Your task to perform on an android device: turn on translation in the chrome app Image 0: 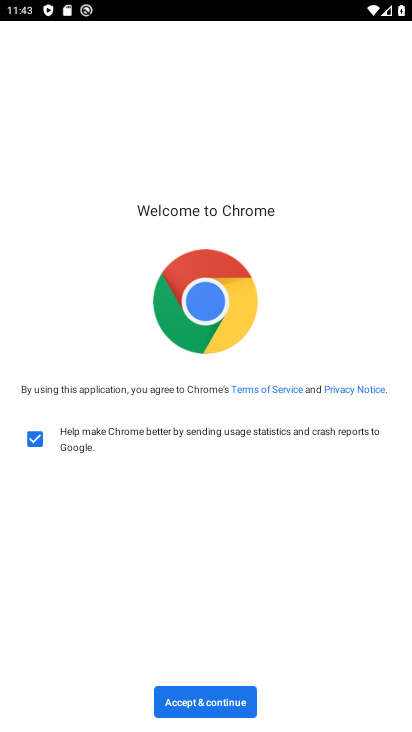
Step 0: click (224, 706)
Your task to perform on an android device: turn on translation in the chrome app Image 1: 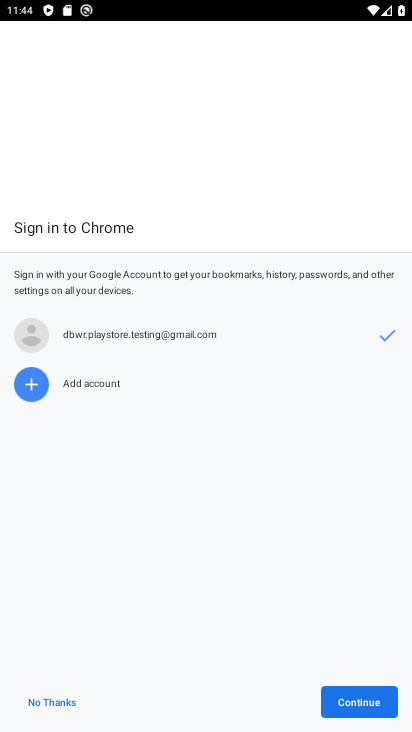
Step 1: drag from (171, 604) to (196, 301)
Your task to perform on an android device: turn on translation in the chrome app Image 2: 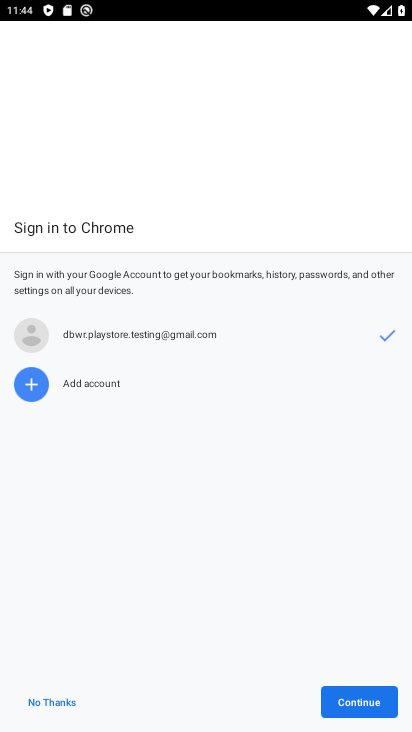
Step 2: click (54, 702)
Your task to perform on an android device: turn on translation in the chrome app Image 3: 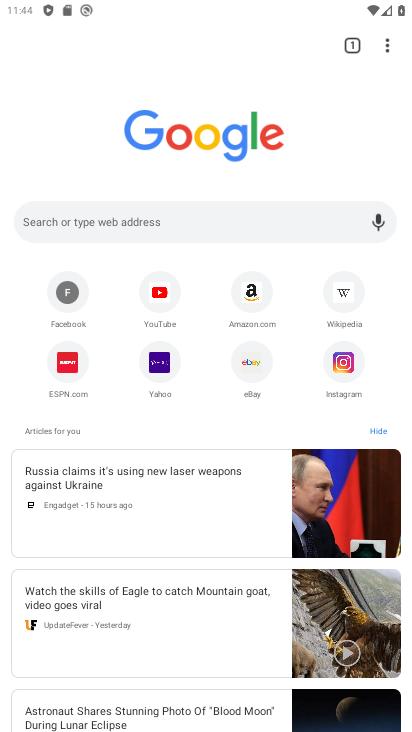
Step 3: click (393, 31)
Your task to perform on an android device: turn on translation in the chrome app Image 4: 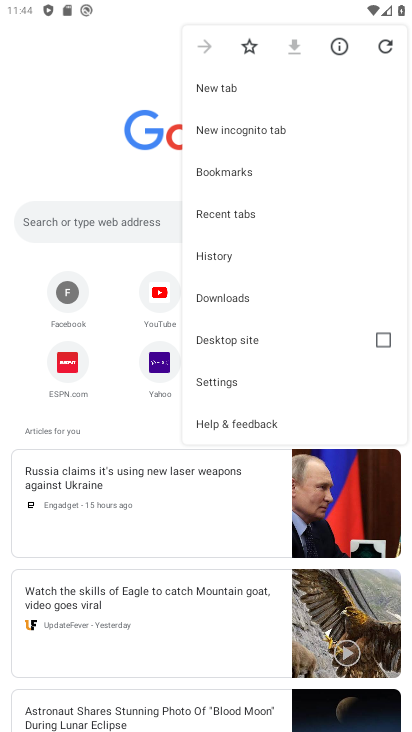
Step 4: click (229, 390)
Your task to perform on an android device: turn on translation in the chrome app Image 5: 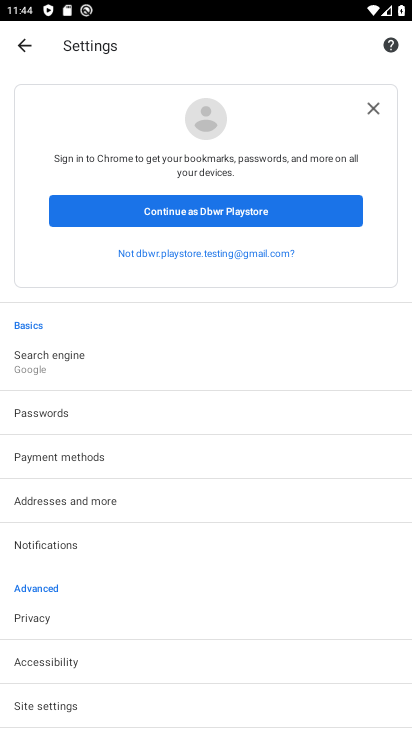
Step 5: drag from (60, 685) to (73, 236)
Your task to perform on an android device: turn on translation in the chrome app Image 6: 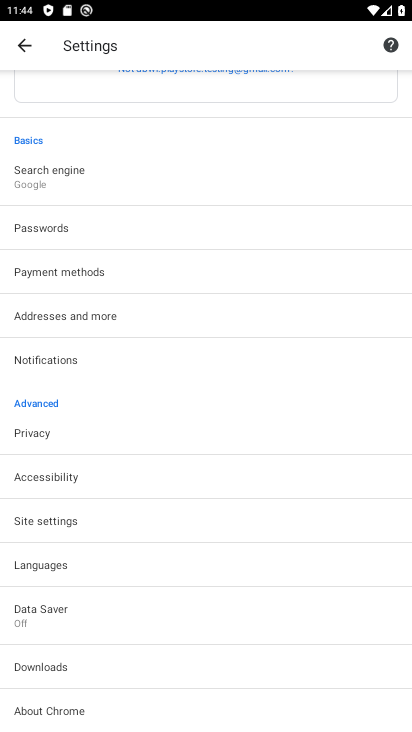
Step 6: click (82, 564)
Your task to perform on an android device: turn on translation in the chrome app Image 7: 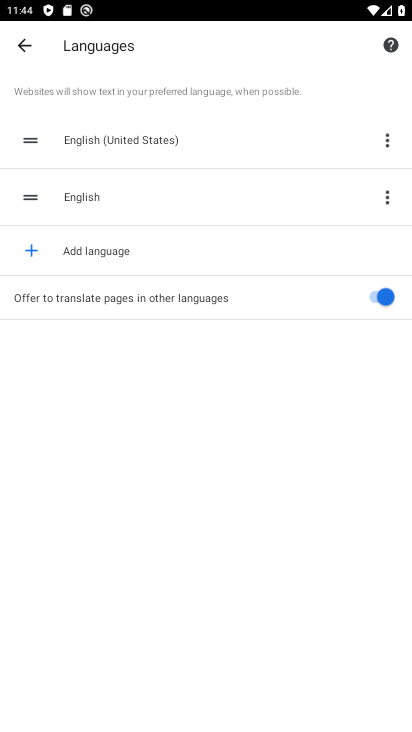
Step 7: task complete